Your task to perform on an android device: Go to notification settings Image 0: 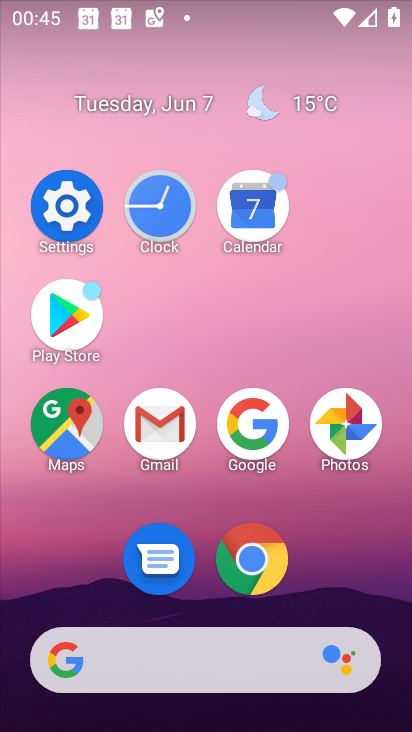
Step 0: click (78, 206)
Your task to perform on an android device: Go to notification settings Image 1: 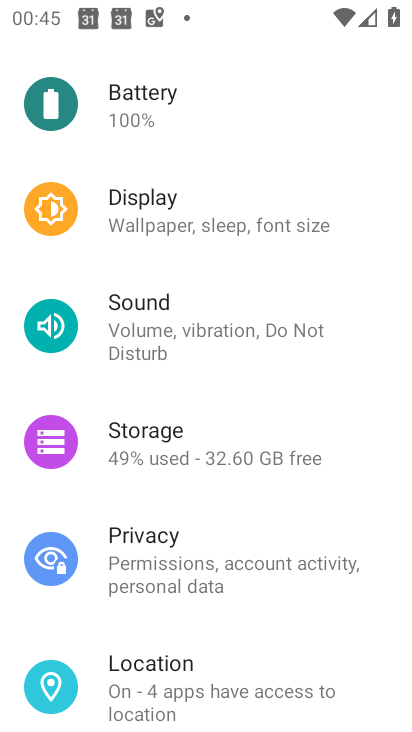
Step 1: drag from (270, 280) to (255, 606)
Your task to perform on an android device: Go to notification settings Image 2: 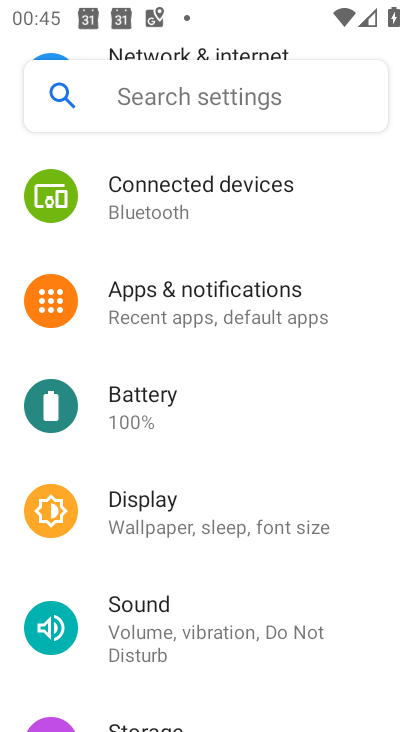
Step 2: click (252, 310)
Your task to perform on an android device: Go to notification settings Image 3: 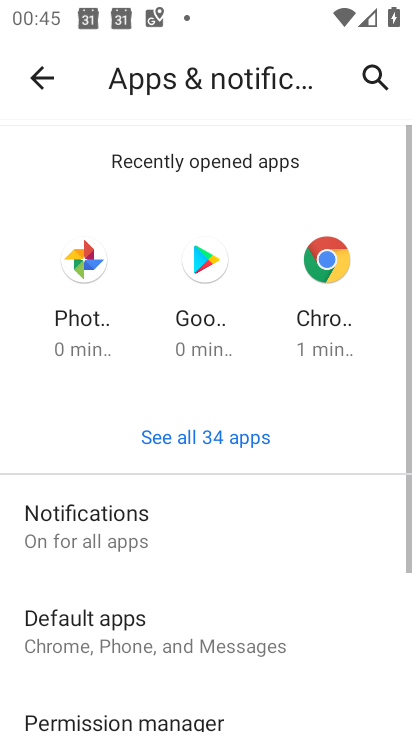
Step 3: task complete